Your task to perform on an android device: Open Amazon Image 0: 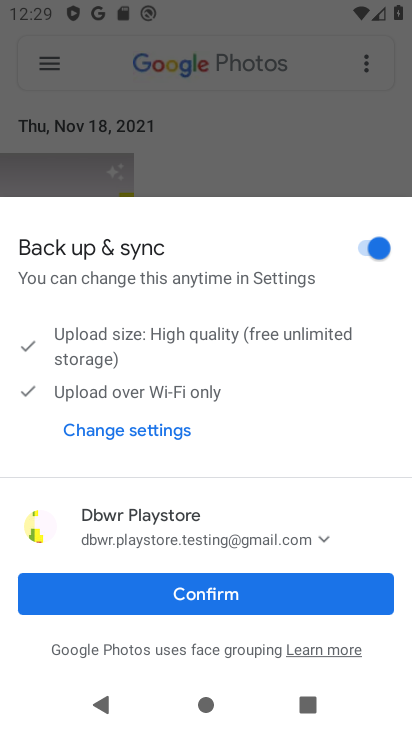
Step 0: press home button
Your task to perform on an android device: Open Amazon Image 1: 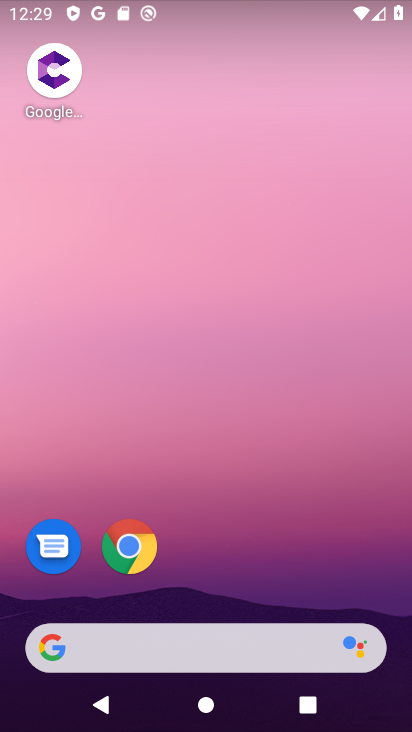
Step 1: click (130, 547)
Your task to perform on an android device: Open Amazon Image 2: 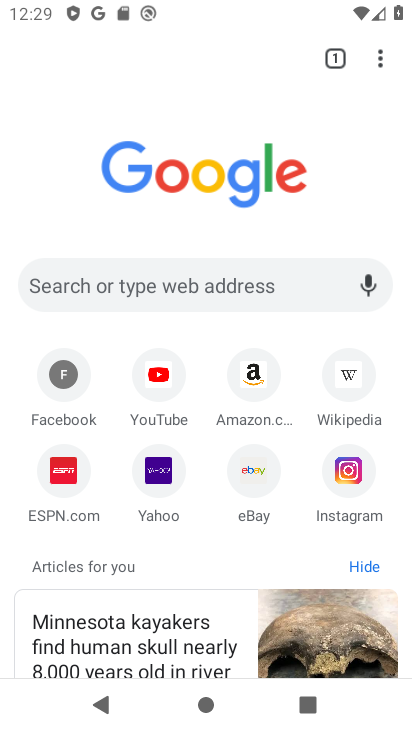
Step 2: click (245, 381)
Your task to perform on an android device: Open Amazon Image 3: 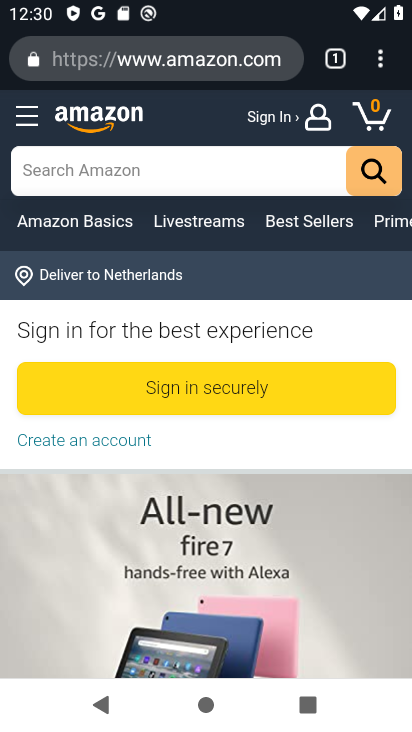
Step 3: task complete